Your task to perform on an android device: uninstall "ZOOM Cloud Meetings" Image 0: 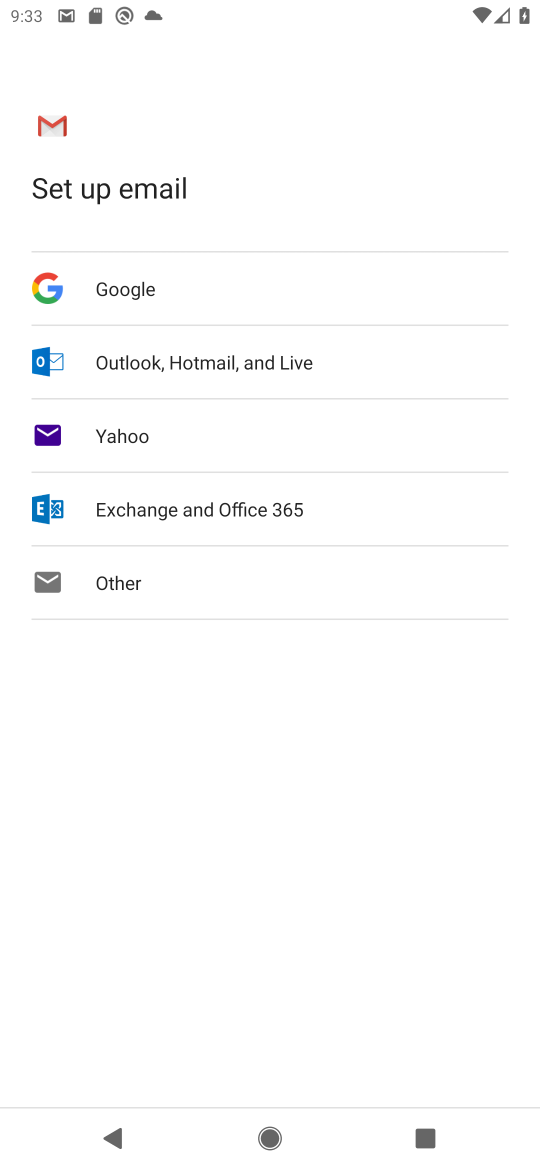
Step 0: press home button
Your task to perform on an android device: uninstall "ZOOM Cloud Meetings" Image 1: 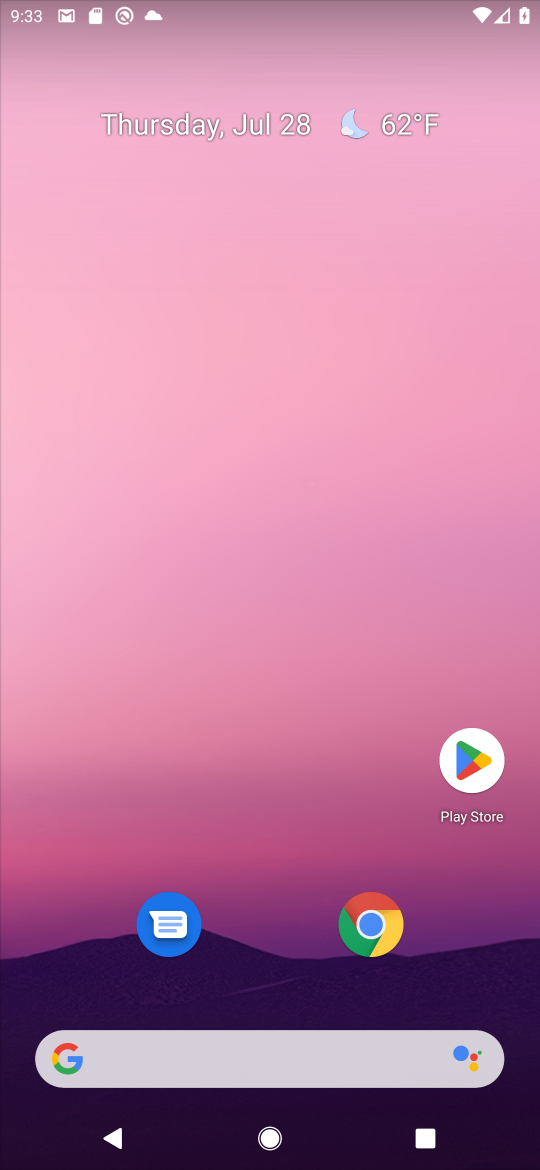
Step 1: click (471, 759)
Your task to perform on an android device: uninstall "ZOOM Cloud Meetings" Image 2: 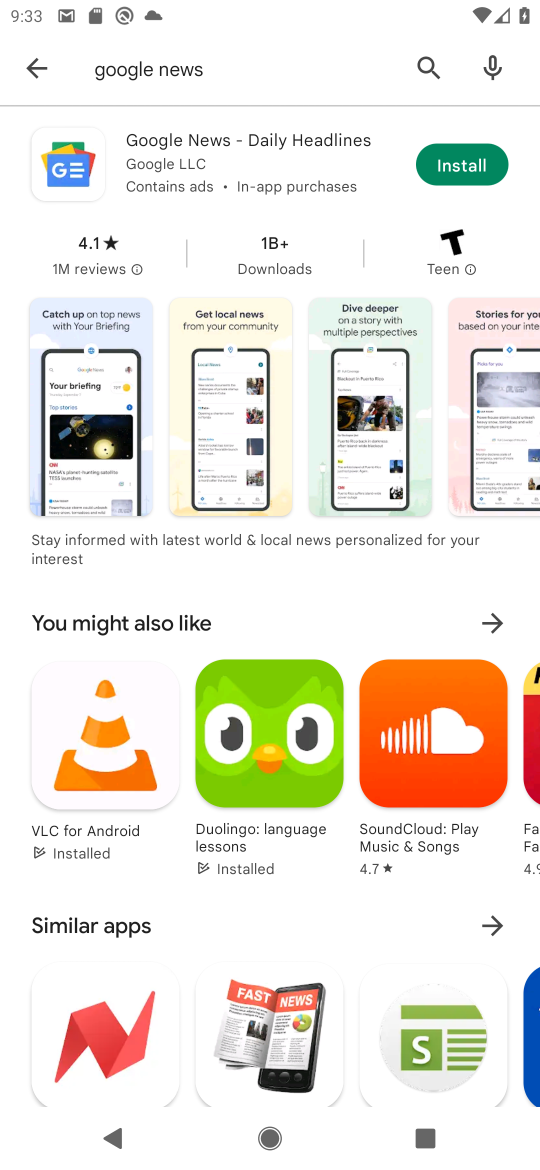
Step 2: click (420, 55)
Your task to perform on an android device: uninstall "ZOOM Cloud Meetings" Image 3: 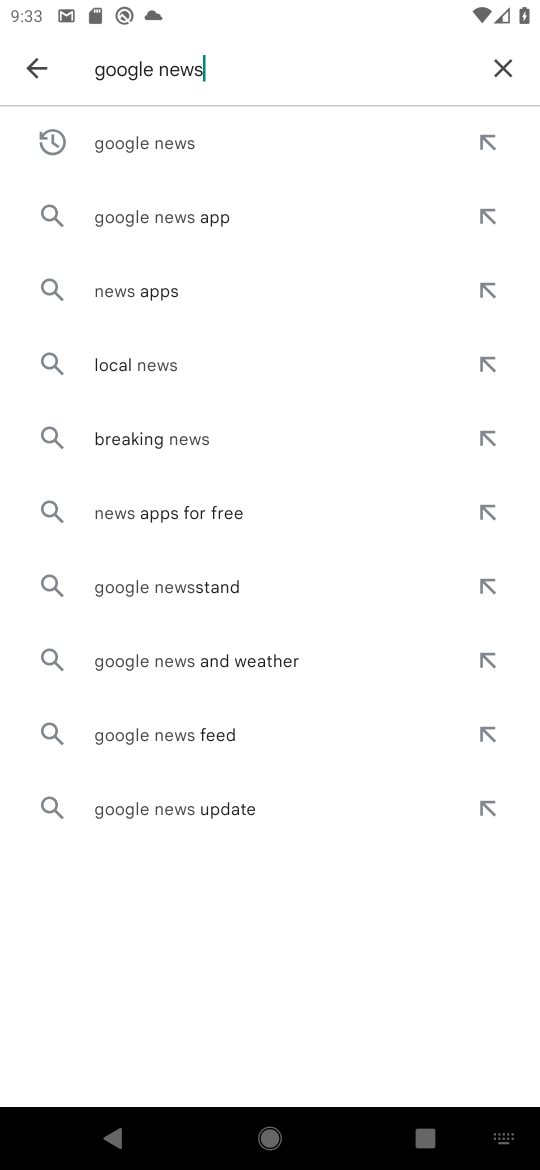
Step 3: click (500, 58)
Your task to perform on an android device: uninstall "ZOOM Cloud Meetings" Image 4: 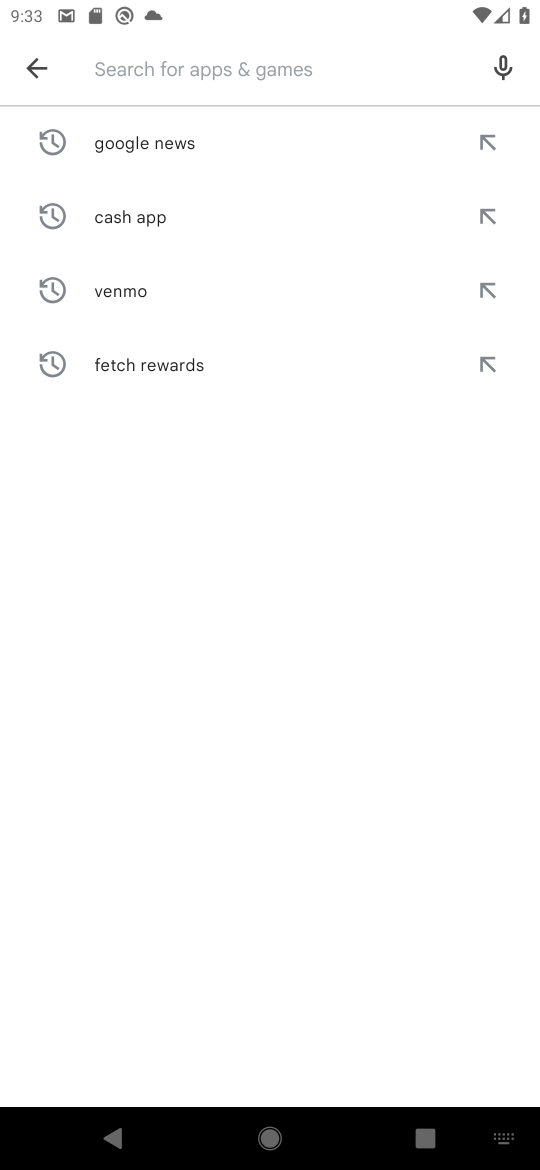
Step 4: type "ZOOM Cloud Meetings"
Your task to perform on an android device: uninstall "ZOOM Cloud Meetings" Image 5: 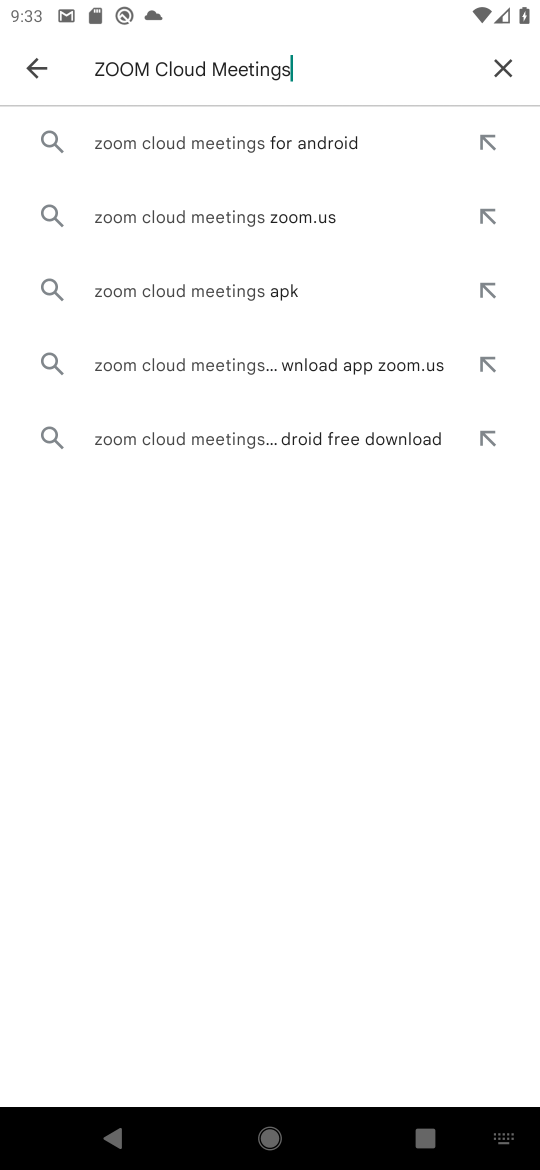
Step 5: click (285, 143)
Your task to perform on an android device: uninstall "ZOOM Cloud Meetings" Image 6: 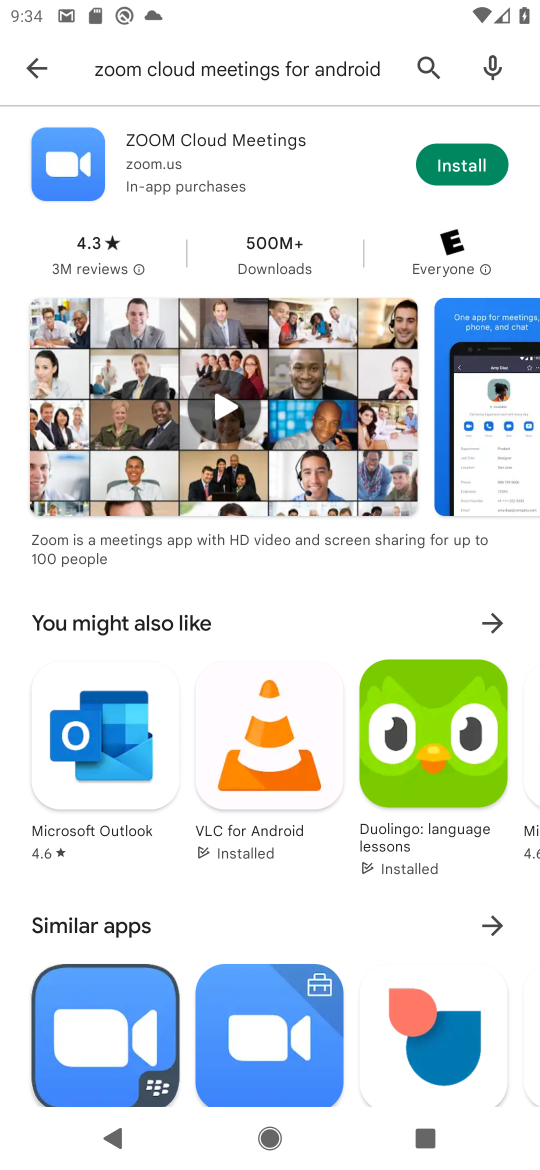
Step 6: task complete